Your task to perform on an android device: uninstall "Adobe Acrobat Reader" Image 0: 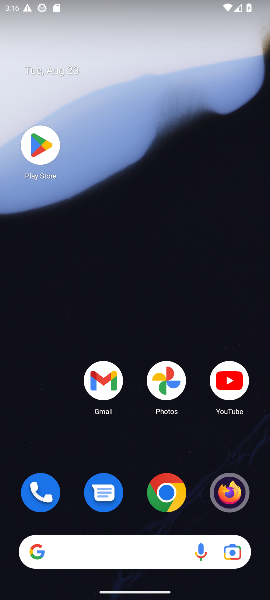
Step 0: click (48, 155)
Your task to perform on an android device: uninstall "Adobe Acrobat Reader" Image 1: 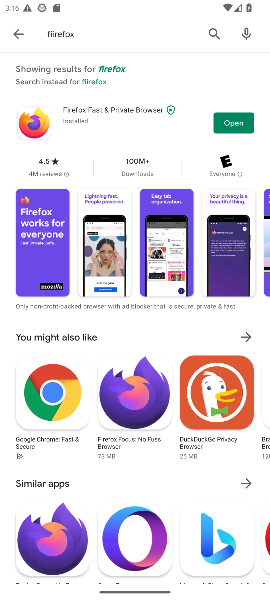
Step 1: click (220, 38)
Your task to perform on an android device: uninstall "Adobe Acrobat Reader" Image 2: 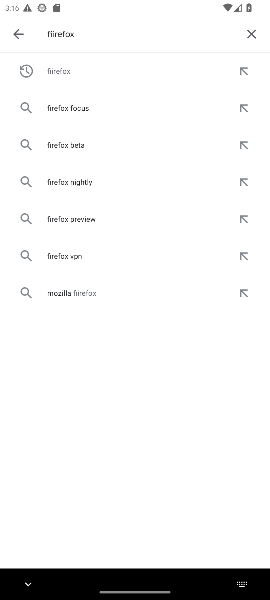
Step 2: task complete